Your task to perform on an android device: toggle location history Image 0: 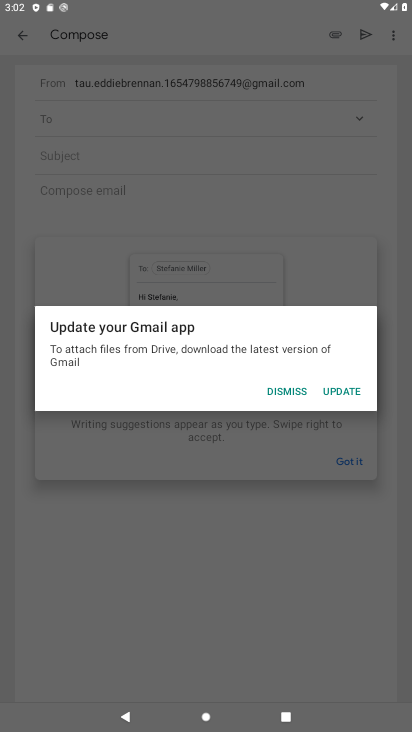
Step 0: press home button
Your task to perform on an android device: toggle location history Image 1: 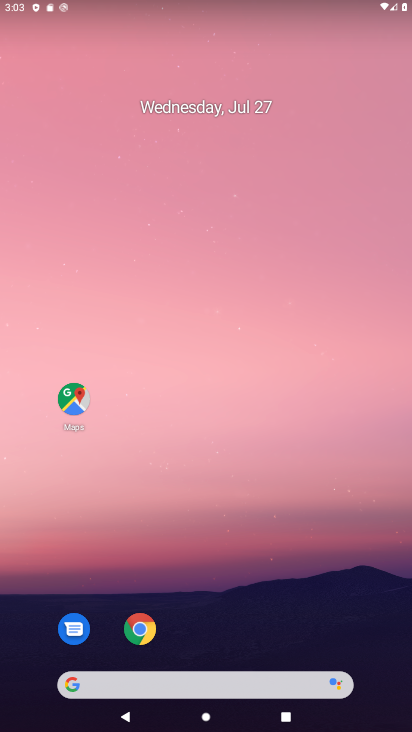
Step 1: drag from (222, 651) to (253, 0)
Your task to perform on an android device: toggle location history Image 2: 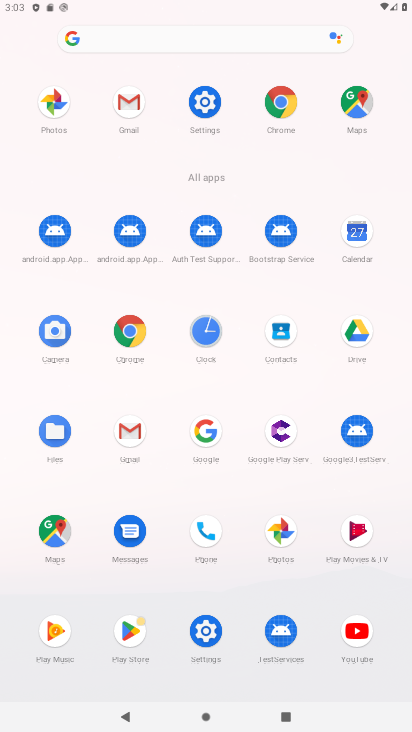
Step 2: click (192, 89)
Your task to perform on an android device: toggle location history Image 3: 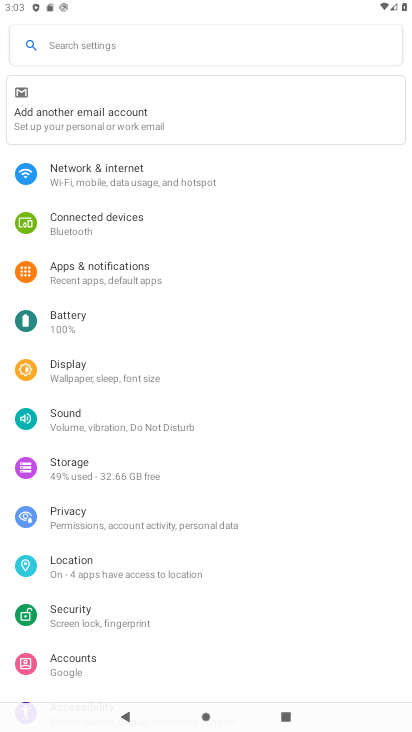
Step 3: click (107, 562)
Your task to perform on an android device: toggle location history Image 4: 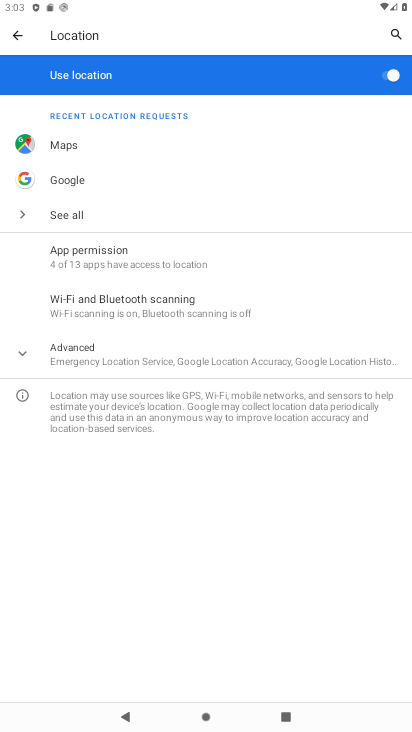
Step 4: click (25, 350)
Your task to perform on an android device: toggle location history Image 5: 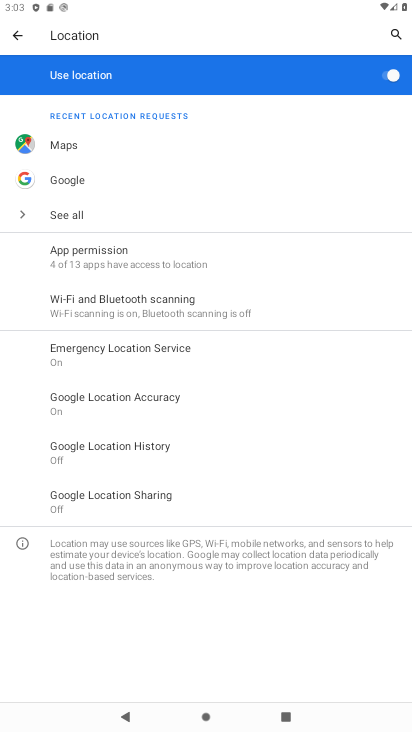
Step 5: click (141, 441)
Your task to perform on an android device: toggle location history Image 6: 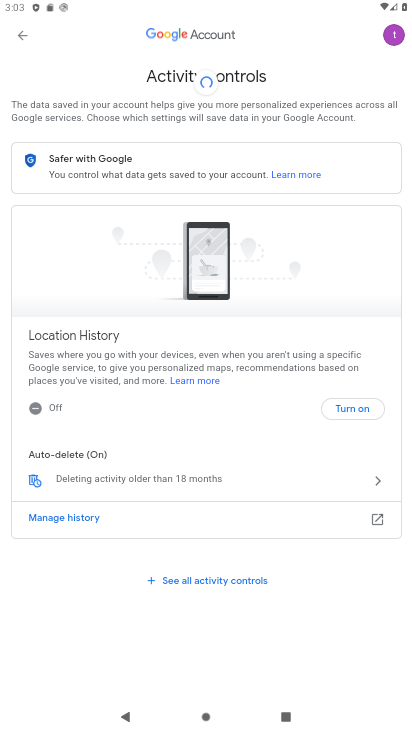
Step 6: task complete